Your task to perform on an android device: set default search engine in the chrome app Image 0: 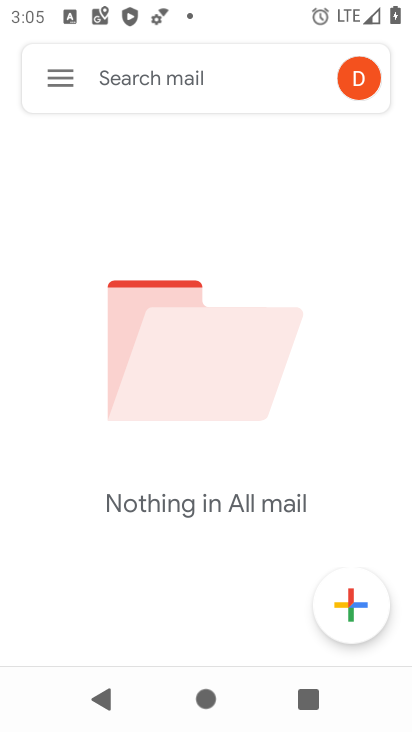
Step 0: press home button
Your task to perform on an android device: set default search engine in the chrome app Image 1: 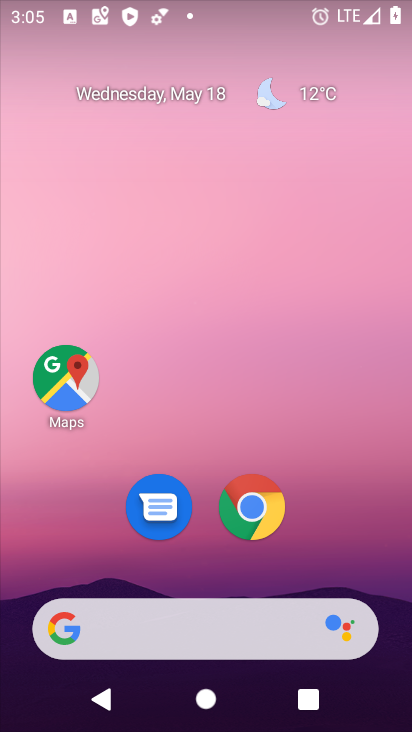
Step 1: click (253, 509)
Your task to perform on an android device: set default search engine in the chrome app Image 2: 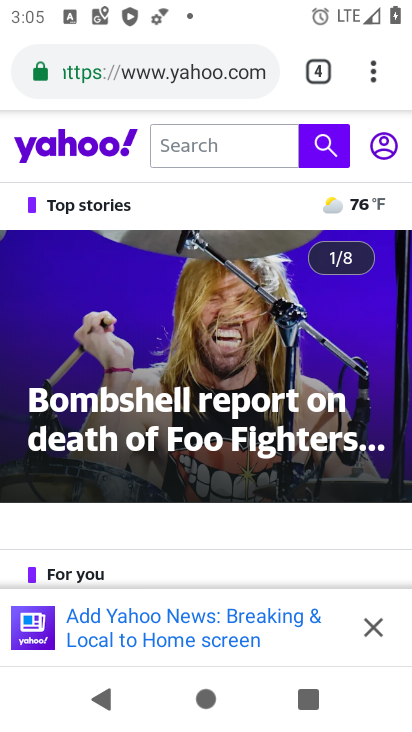
Step 2: click (372, 78)
Your task to perform on an android device: set default search engine in the chrome app Image 3: 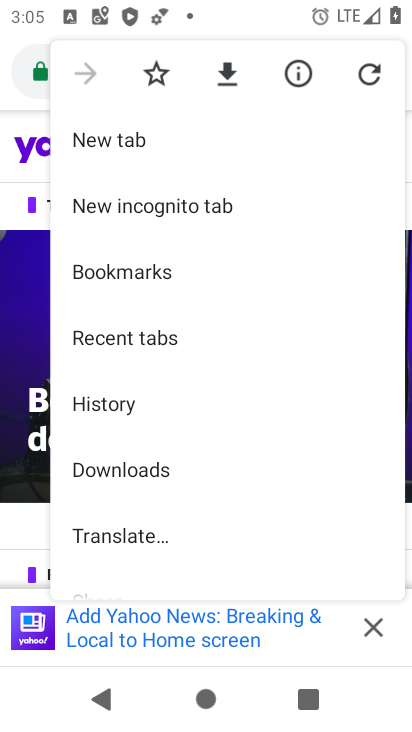
Step 3: drag from (216, 524) to (213, 209)
Your task to perform on an android device: set default search engine in the chrome app Image 4: 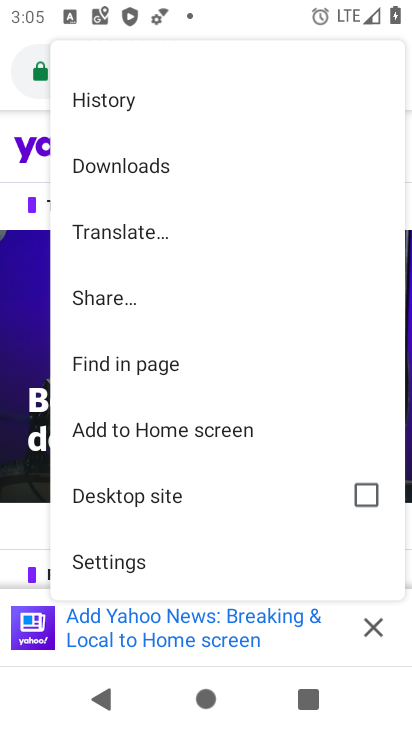
Step 4: drag from (255, 488) to (223, 209)
Your task to perform on an android device: set default search engine in the chrome app Image 5: 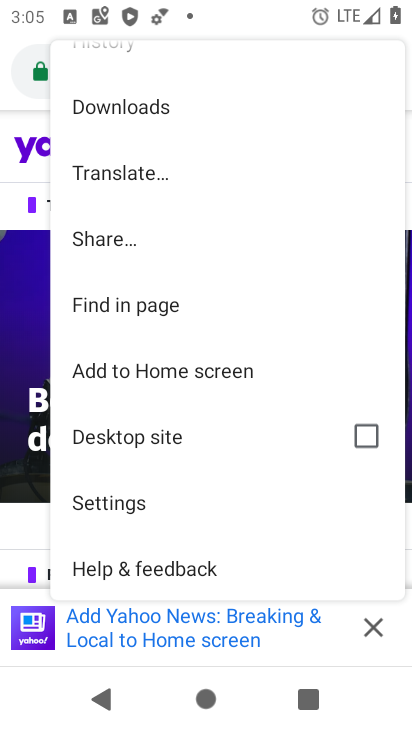
Step 5: click (123, 507)
Your task to perform on an android device: set default search engine in the chrome app Image 6: 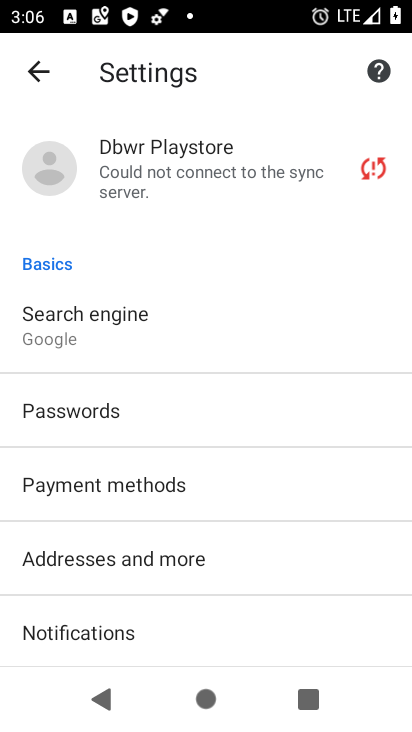
Step 6: click (52, 302)
Your task to perform on an android device: set default search engine in the chrome app Image 7: 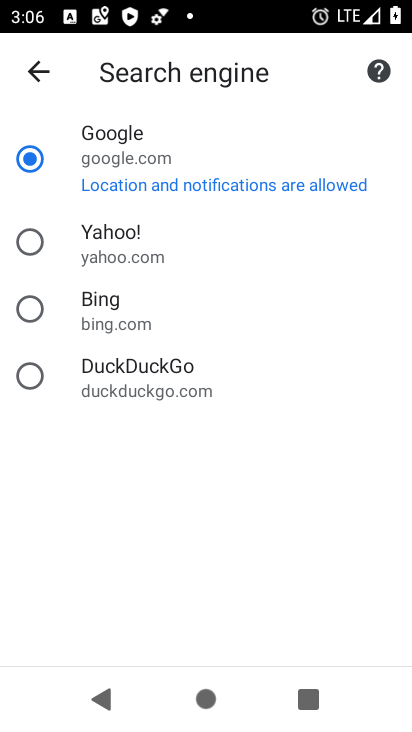
Step 7: click (27, 251)
Your task to perform on an android device: set default search engine in the chrome app Image 8: 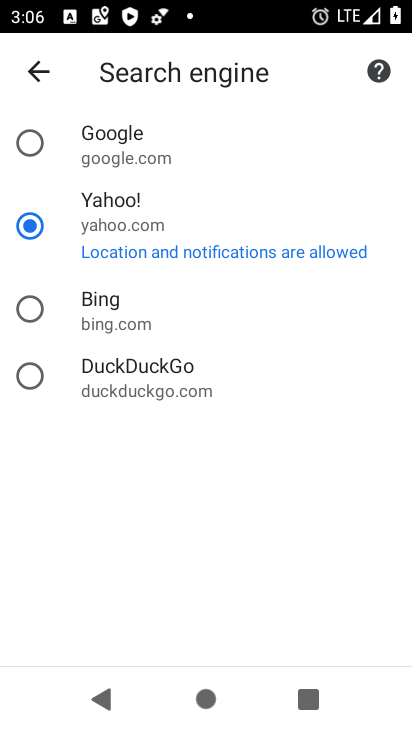
Step 8: task complete